Your task to perform on an android device: Search for the Nintendo Switch. Image 0: 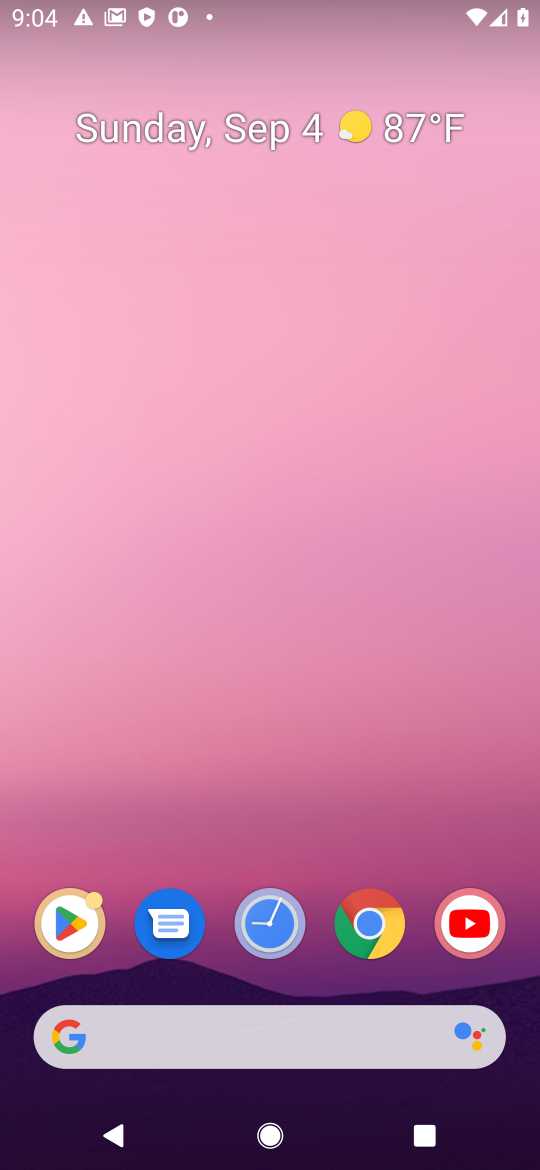
Step 0: press home button
Your task to perform on an android device: Search for the Nintendo Switch. Image 1: 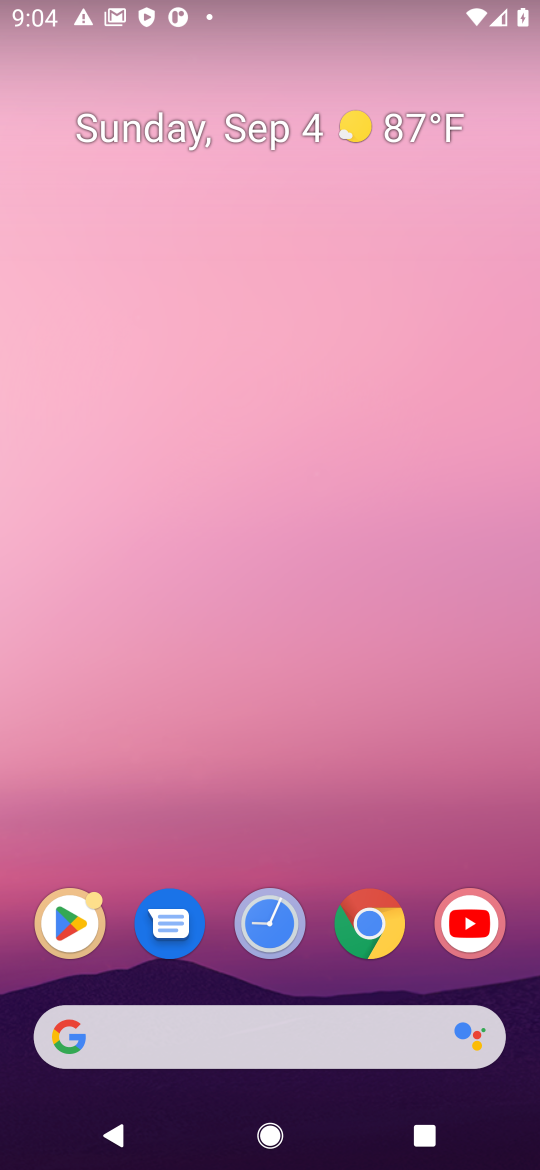
Step 1: click (355, 1023)
Your task to perform on an android device: Search for the Nintendo Switch. Image 2: 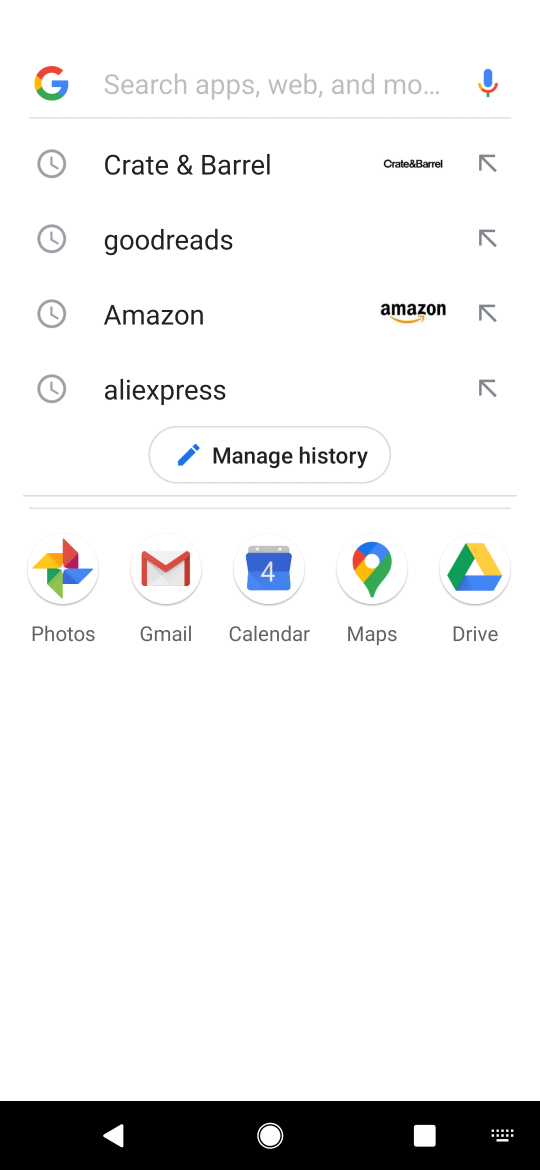
Step 2: press enter
Your task to perform on an android device: Search for the Nintendo Switch. Image 3: 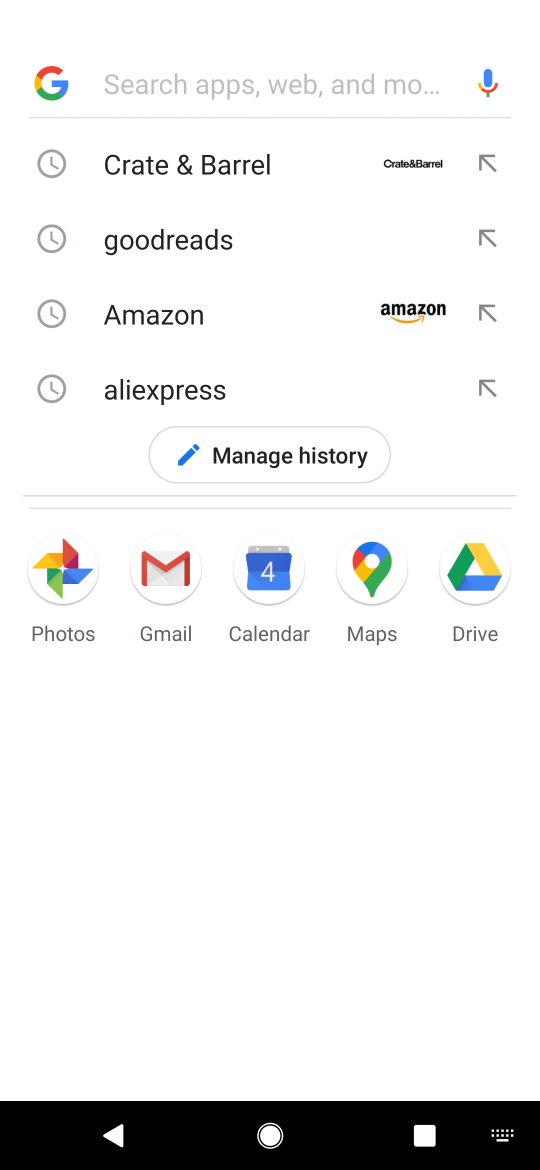
Step 3: type "nintendo switch"
Your task to perform on an android device: Search for the Nintendo Switch. Image 4: 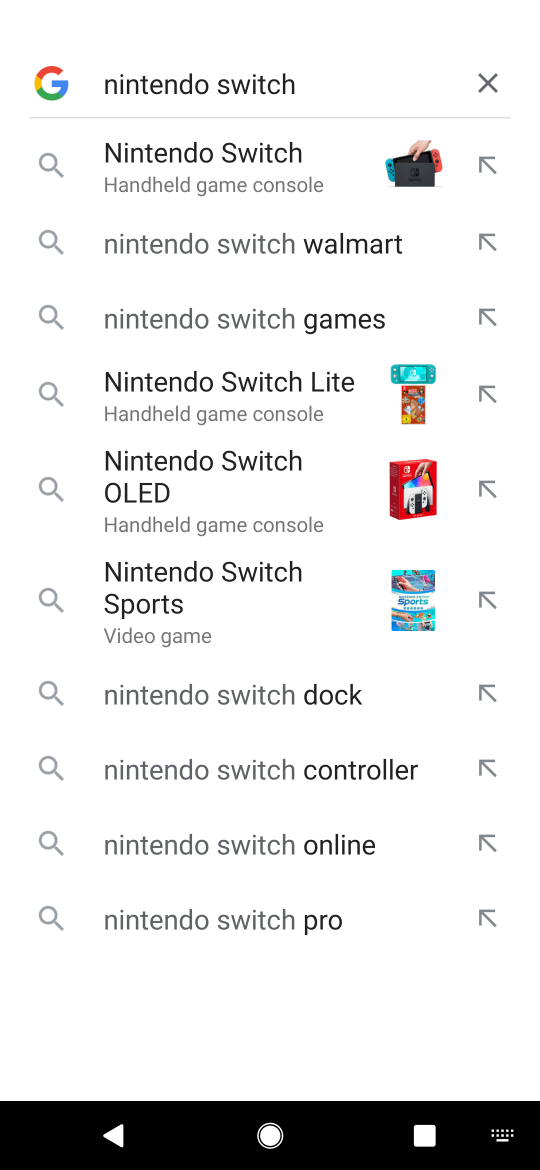
Step 4: click (259, 163)
Your task to perform on an android device: Search for the Nintendo Switch. Image 5: 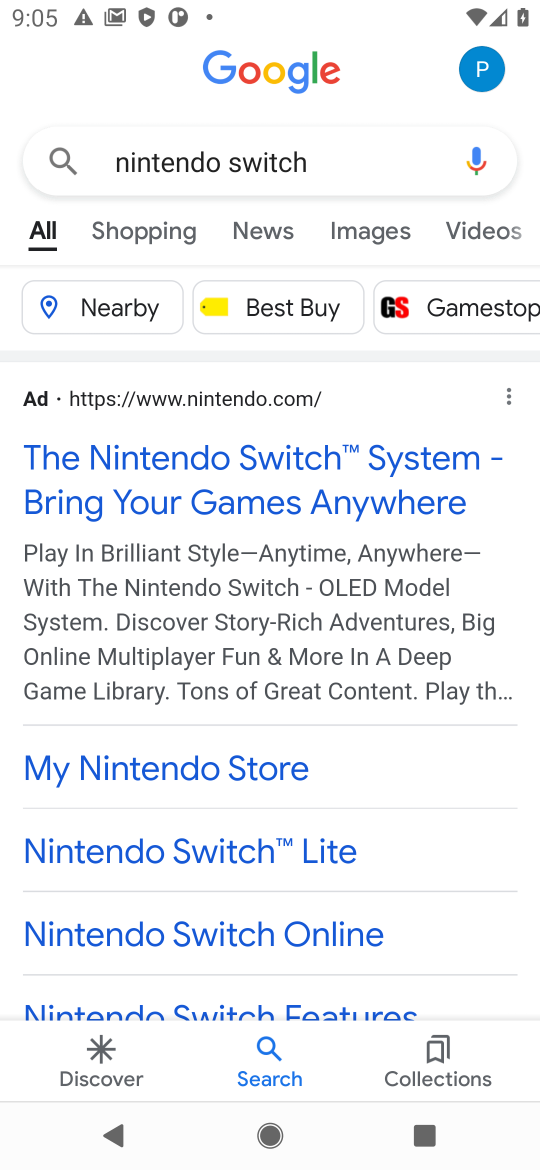
Step 5: click (360, 484)
Your task to perform on an android device: Search for the Nintendo Switch. Image 6: 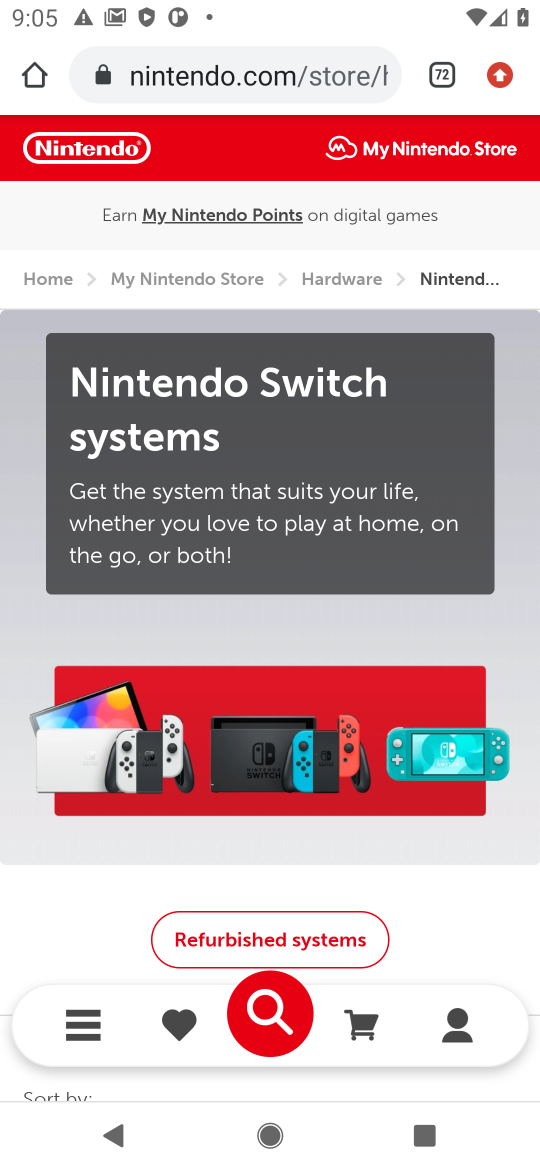
Step 6: task complete